Your task to perform on an android device: turn off smart reply in the gmail app Image 0: 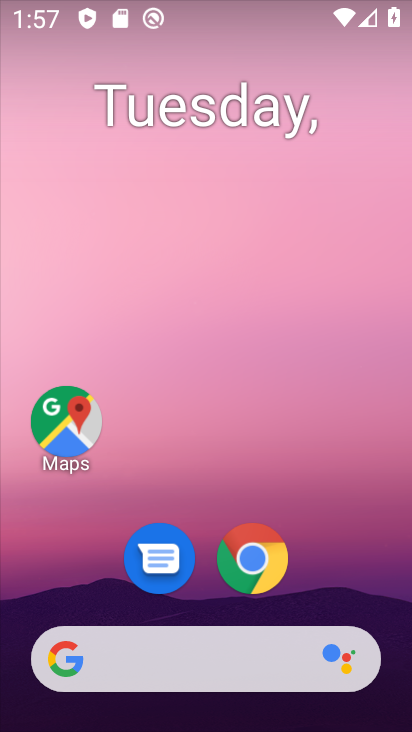
Step 0: drag from (195, 560) to (259, 53)
Your task to perform on an android device: turn off smart reply in the gmail app Image 1: 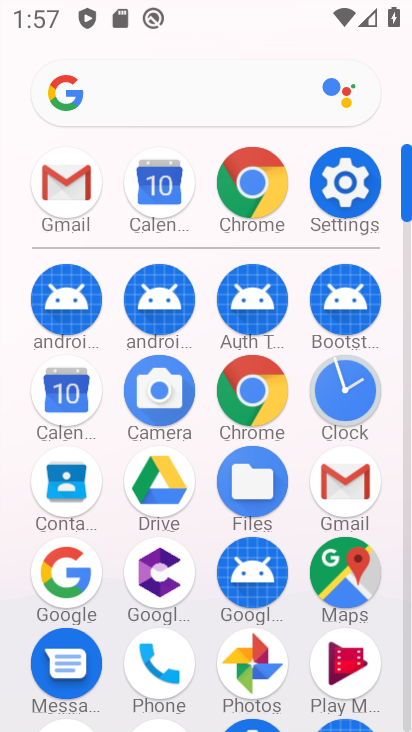
Step 1: click (68, 176)
Your task to perform on an android device: turn off smart reply in the gmail app Image 2: 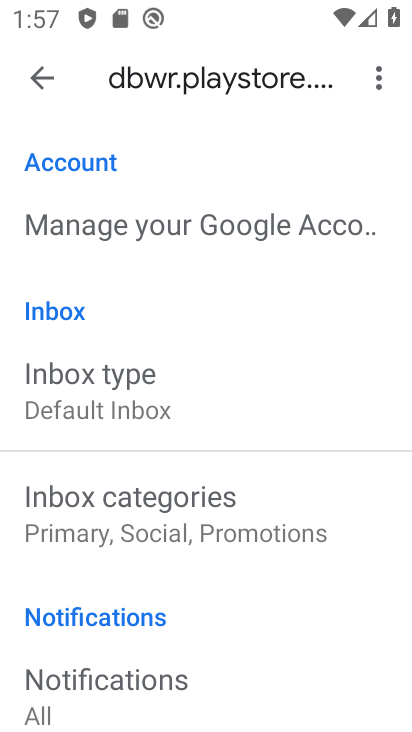
Step 2: drag from (160, 640) to (309, 83)
Your task to perform on an android device: turn off smart reply in the gmail app Image 3: 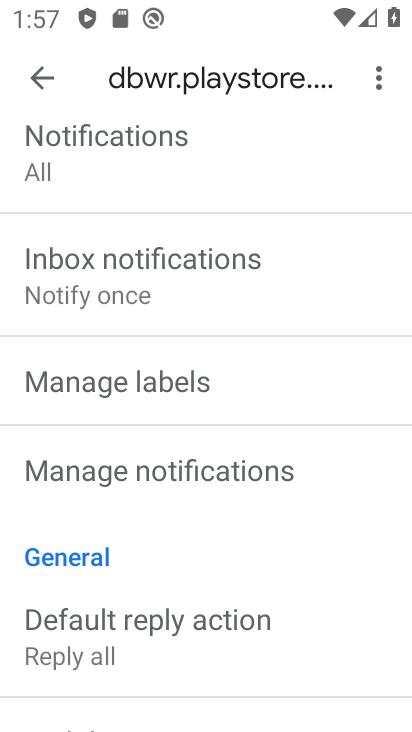
Step 3: drag from (165, 673) to (267, 50)
Your task to perform on an android device: turn off smart reply in the gmail app Image 4: 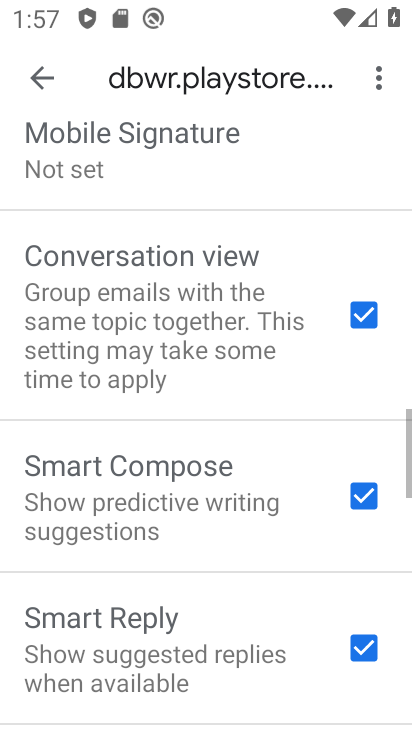
Step 4: drag from (93, 685) to (176, 297)
Your task to perform on an android device: turn off smart reply in the gmail app Image 5: 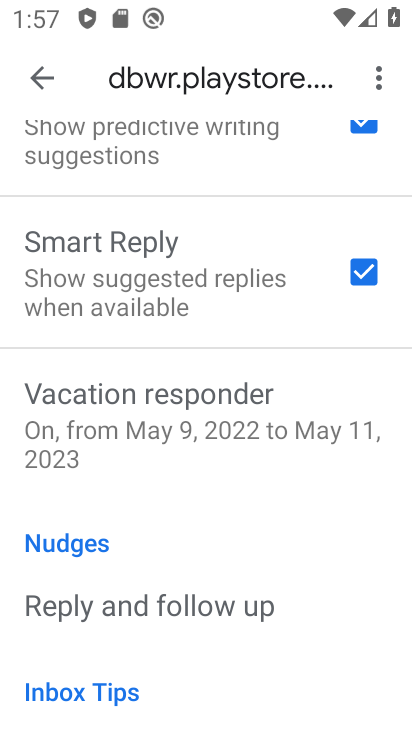
Step 5: click (366, 266)
Your task to perform on an android device: turn off smart reply in the gmail app Image 6: 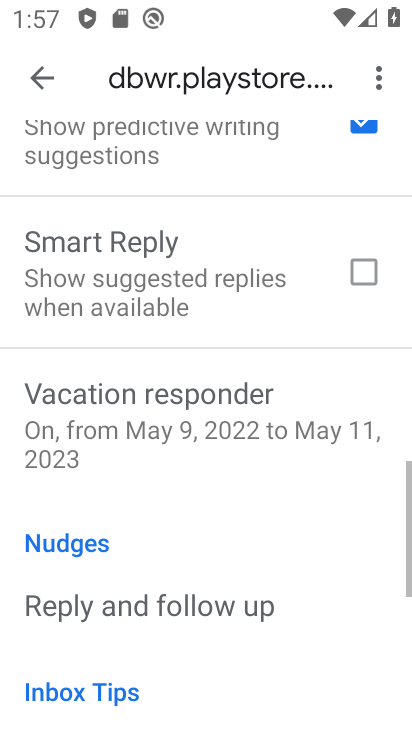
Step 6: task complete